Your task to perform on an android device: Open calendar and show me the second week of next month Image 0: 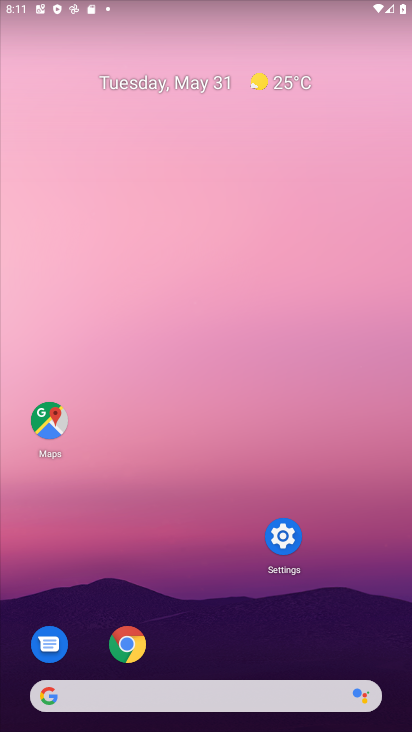
Step 0: press home button
Your task to perform on an android device: Open calendar and show me the second week of next month Image 1: 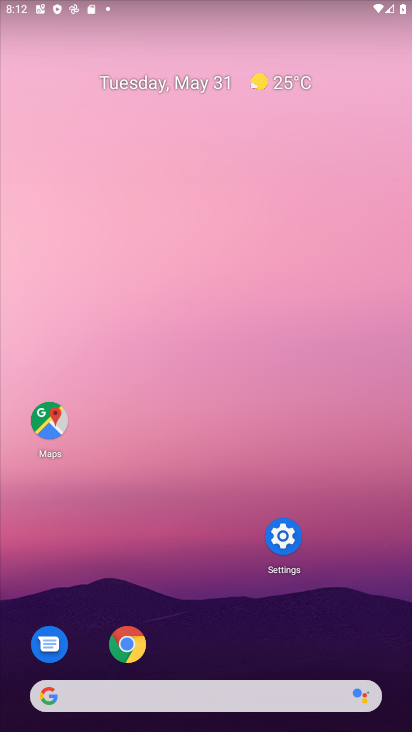
Step 1: drag from (203, 717) to (240, 389)
Your task to perform on an android device: Open calendar and show me the second week of next month Image 2: 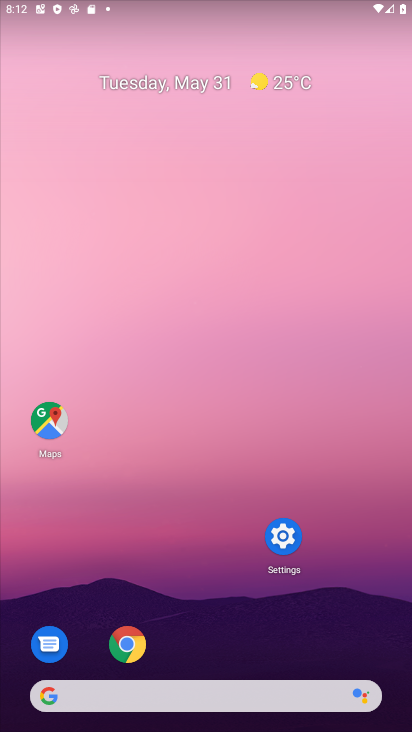
Step 2: drag from (199, 731) to (246, 222)
Your task to perform on an android device: Open calendar and show me the second week of next month Image 3: 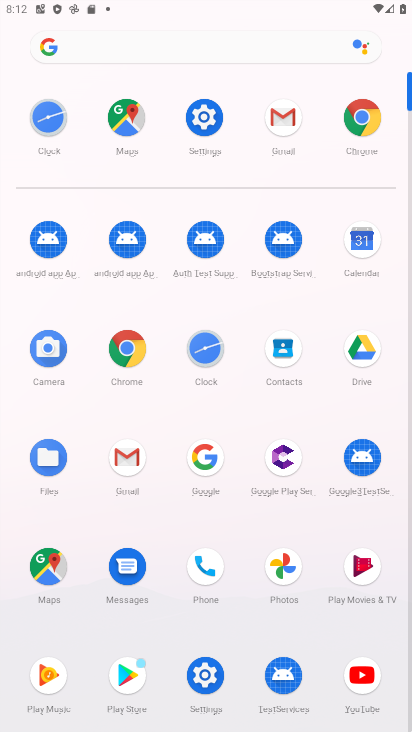
Step 3: click (352, 244)
Your task to perform on an android device: Open calendar and show me the second week of next month Image 4: 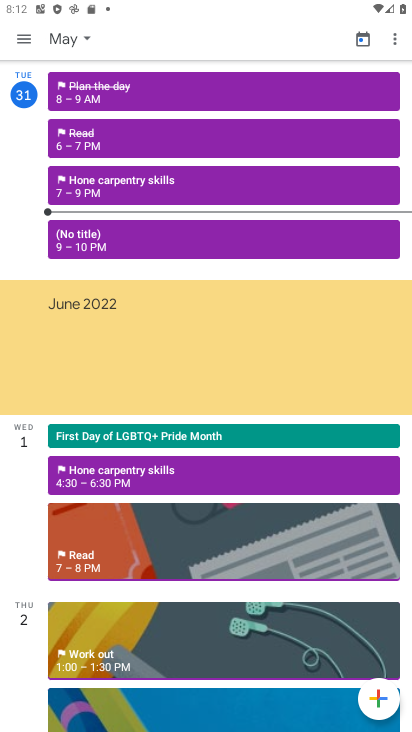
Step 4: click (19, 40)
Your task to perform on an android device: Open calendar and show me the second week of next month Image 5: 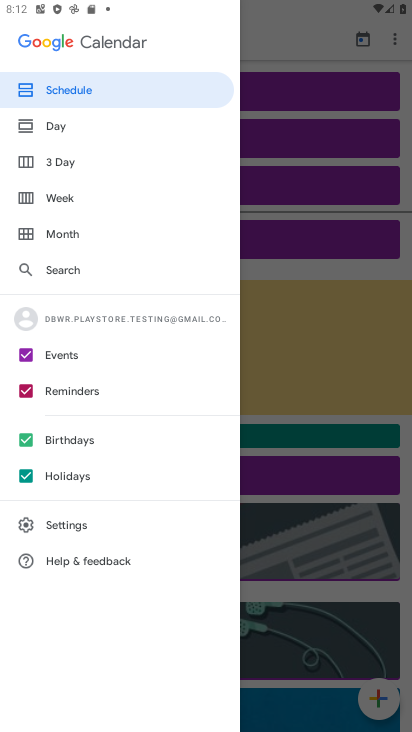
Step 5: click (53, 238)
Your task to perform on an android device: Open calendar and show me the second week of next month Image 6: 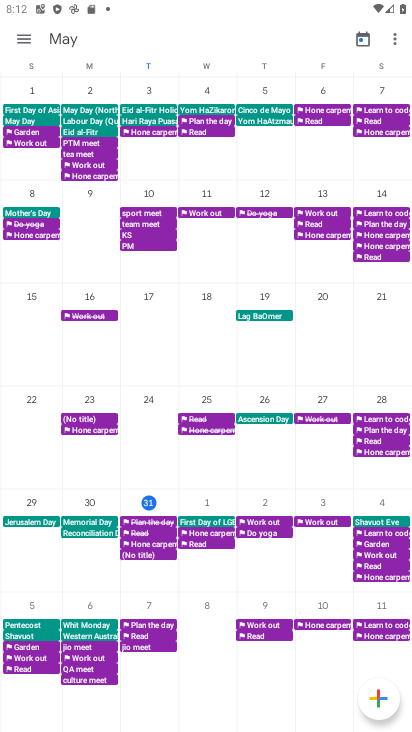
Step 6: drag from (392, 359) to (8, 462)
Your task to perform on an android device: Open calendar and show me the second week of next month Image 7: 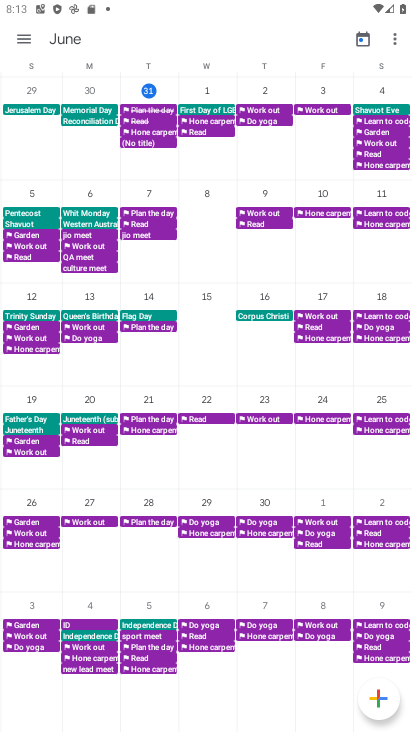
Step 7: click (94, 237)
Your task to perform on an android device: Open calendar and show me the second week of next month Image 8: 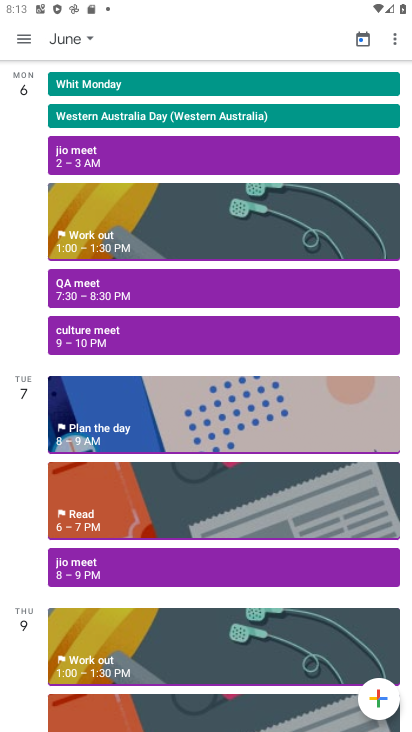
Step 8: task complete